Your task to perform on an android device: move an email to a new category in the gmail app Image 0: 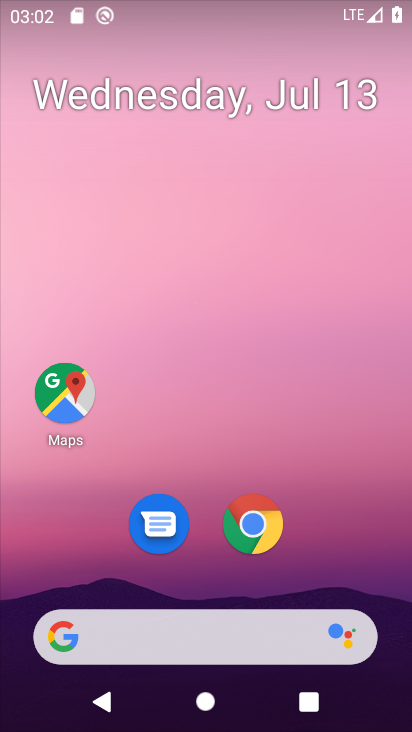
Step 0: drag from (331, 544) to (379, 38)
Your task to perform on an android device: move an email to a new category in the gmail app Image 1: 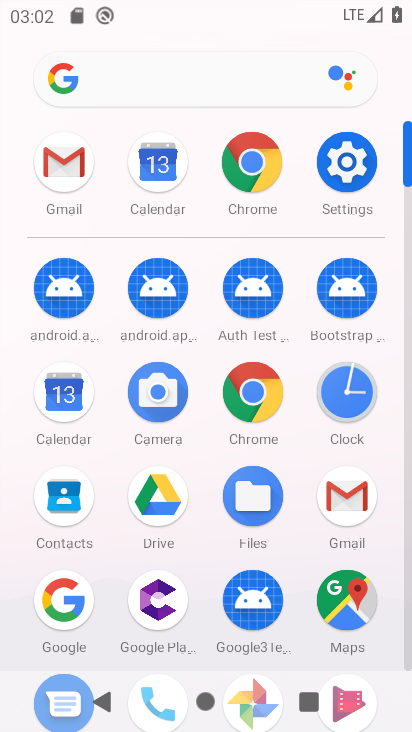
Step 1: click (60, 168)
Your task to perform on an android device: move an email to a new category in the gmail app Image 2: 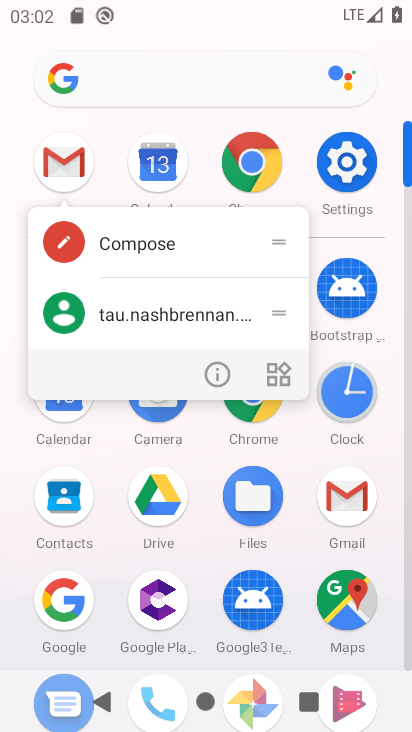
Step 2: click (62, 160)
Your task to perform on an android device: move an email to a new category in the gmail app Image 3: 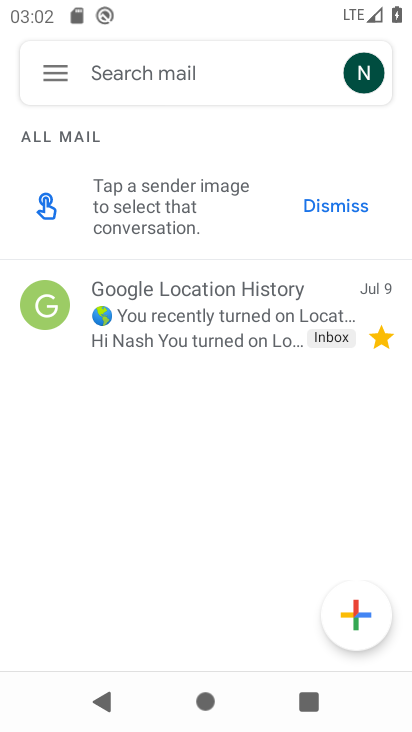
Step 3: click (170, 293)
Your task to perform on an android device: move an email to a new category in the gmail app Image 4: 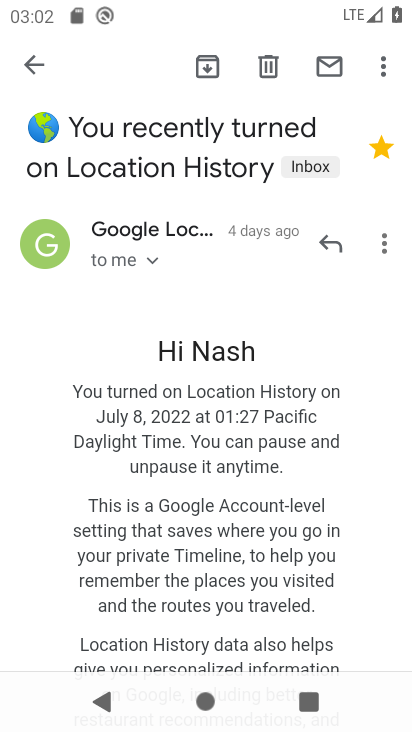
Step 4: click (378, 239)
Your task to perform on an android device: move an email to a new category in the gmail app Image 5: 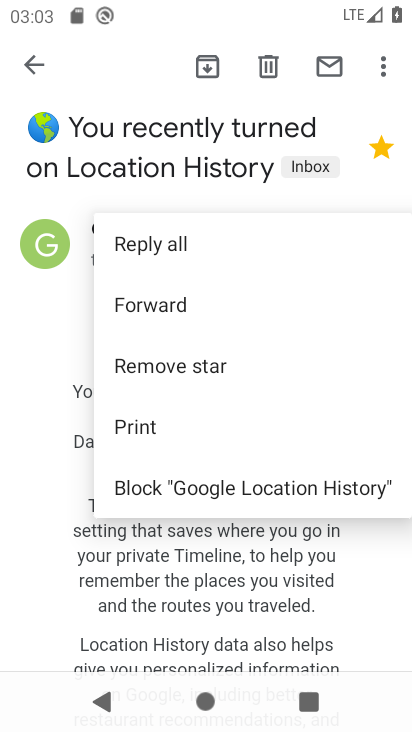
Step 5: click (381, 68)
Your task to perform on an android device: move an email to a new category in the gmail app Image 6: 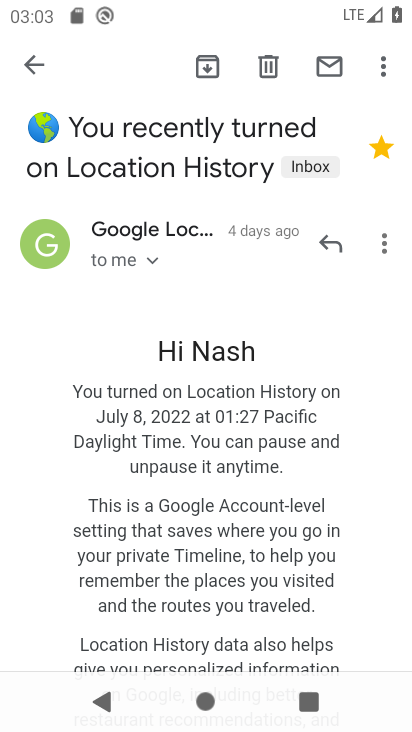
Step 6: click (381, 68)
Your task to perform on an android device: move an email to a new category in the gmail app Image 7: 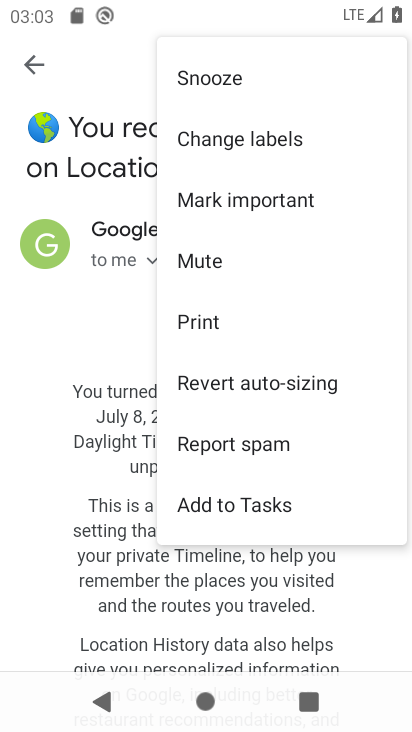
Step 7: click (295, 196)
Your task to perform on an android device: move an email to a new category in the gmail app Image 8: 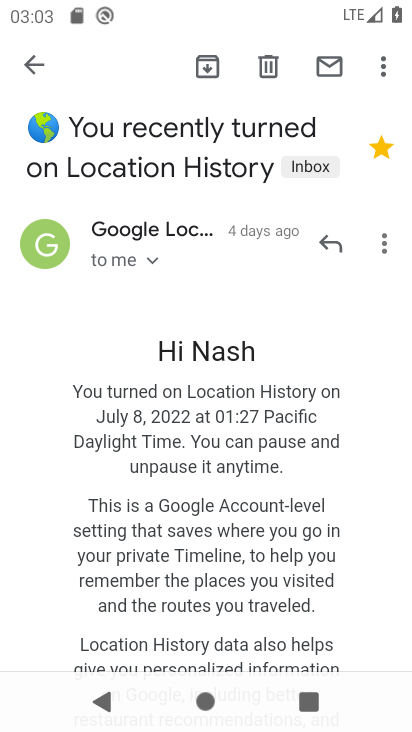
Step 8: task complete